Your task to perform on an android device: Go to CNN.com Image 0: 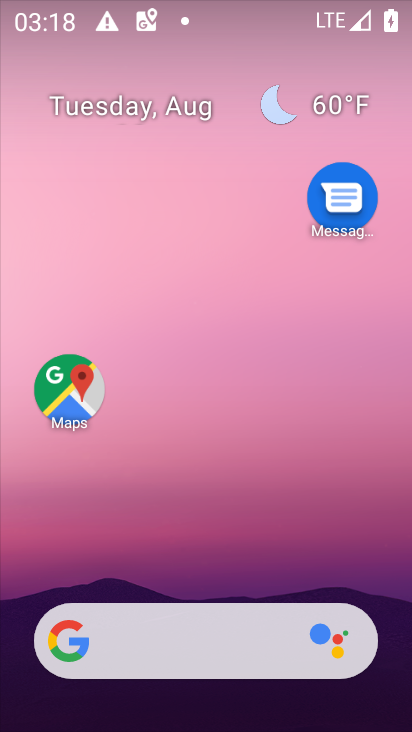
Step 0: click (201, 634)
Your task to perform on an android device: Go to CNN.com Image 1: 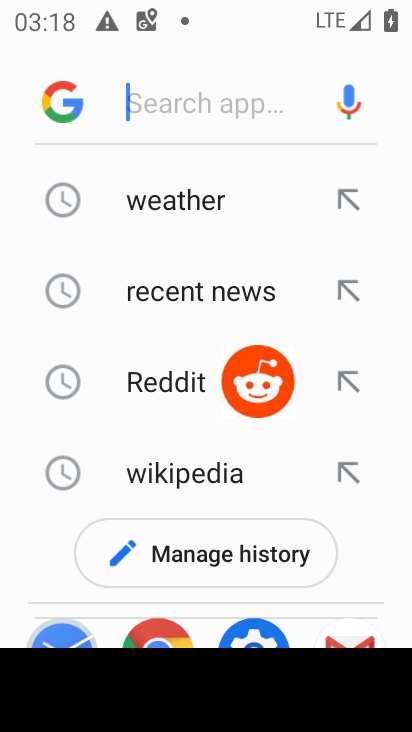
Step 1: type "cnn"
Your task to perform on an android device: Go to CNN.com Image 2: 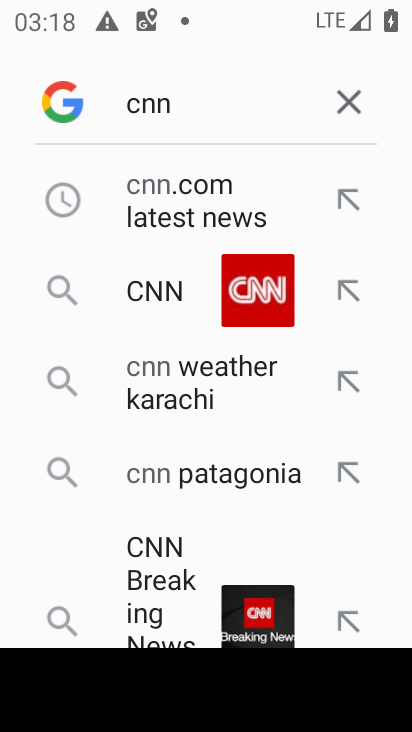
Step 2: click (107, 183)
Your task to perform on an android device: Go to CNN.com Image 3: 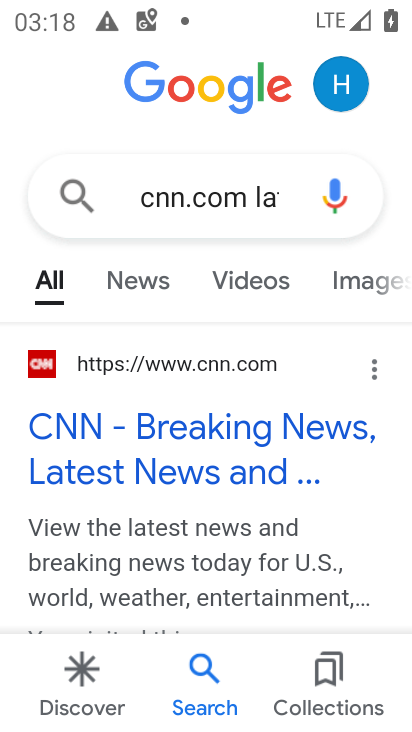
Step 3: task complete